Your task to perform on an android device: uninstall "ColorNote Notepad Notes" Image 0: 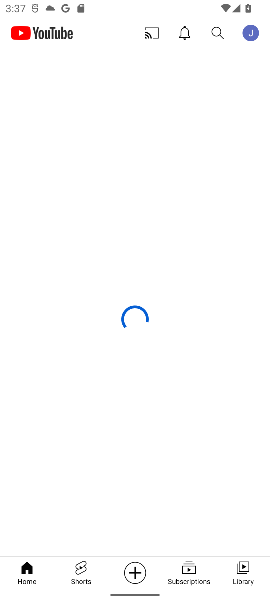
Step 0: press home button
Your task to perform on an android device: uninstall "ColorNote Notepad Notes" Image 1: 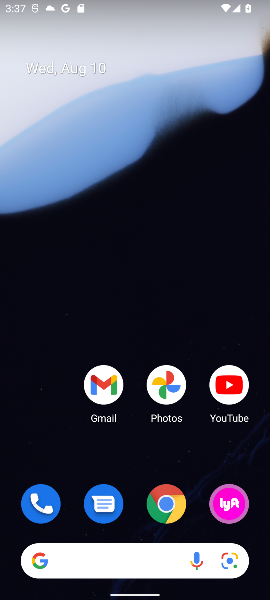
Step 1: drag from (70, 350) to (134, 86)
Your task to perform on an android device: uninstall "ColorNote Notepad Notes" Image 2: 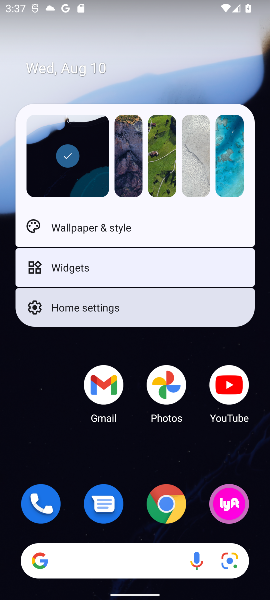
Step 2: press home button
Your task to perform on an android device: uninstall "ColorNote Notepad Notes" Image 3: 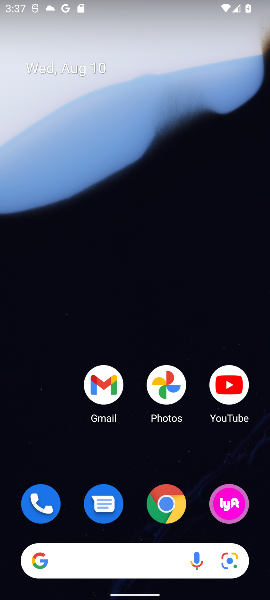
Step 3: drag from (14, 478) to (33, 126)
Your task to perform on an android device: uninstall "ColorNote Notepad Notes" Image 4: 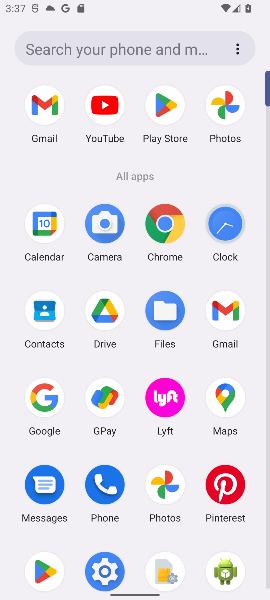
Step 4: click (168, 107)
Your task to perform on an android device: uninstall "ColorNote Notepad Notes" Image 5: 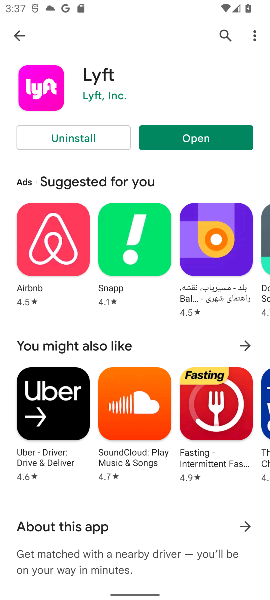
Step 5: click (226, 35)
Your task to perform on an android device: uninstall "ColorNote Notepad Notes" Image 6: 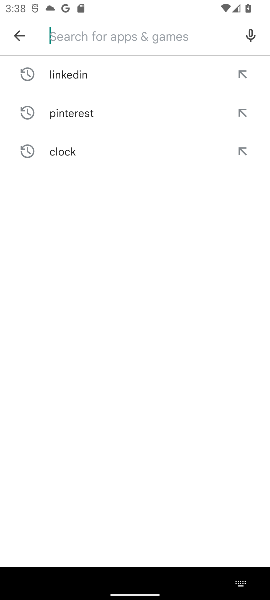
Step 6: type "ColorNote Notepad Notes"
Your task to perform on an android device: uninstall "ColorNote Notepad Notes" Image 7: 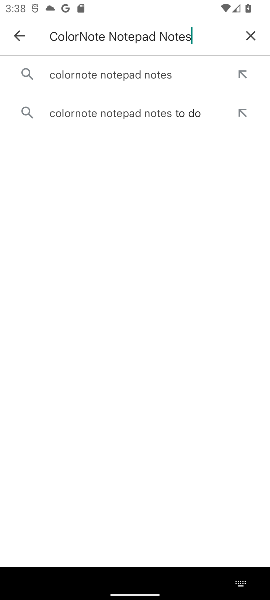
Step 7: click (162, 81)
Your task to perform on an android device: uninstall "ColorNote Notepad Notes" Image 8: 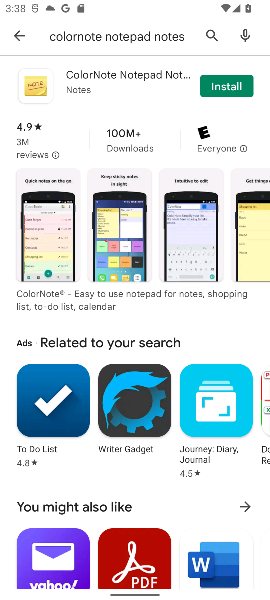
Step 8: task complete